Your task to perform on an android device: Go to notification settings Image 0: 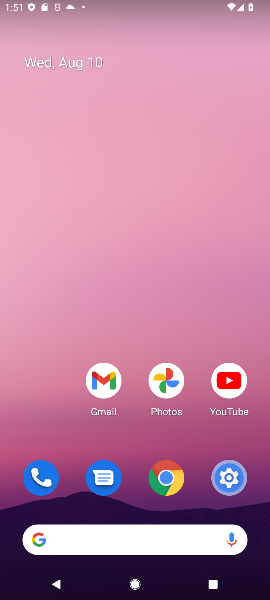
Step 0: click (225, 472)
Your task to perform on an android device: Go to notification settings Image 1: 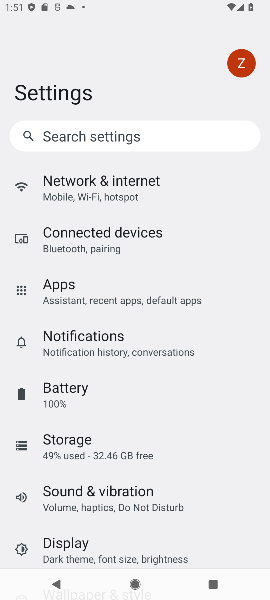
Step 1: click (96, 352)
Your task to perform on an android device: Go to notification settings Image 2: 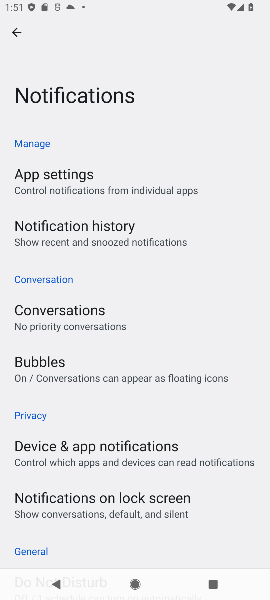
Step 2: task complete